Your task to perform on an android device: Open the web browser Image 0: 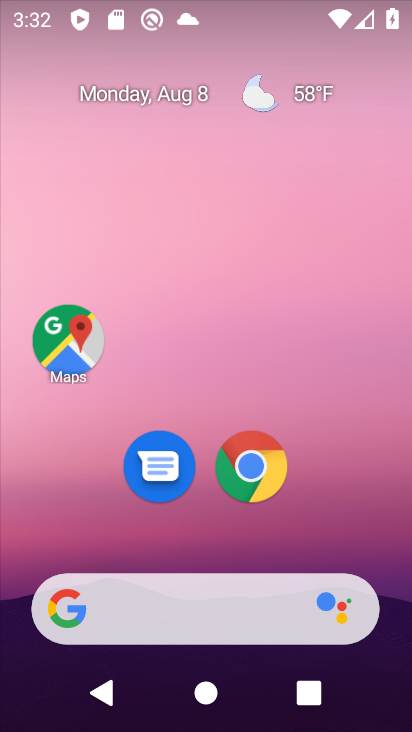
Step 0: click (250, 463)
Your task to perform on an android device: Open the web browser Image 1: 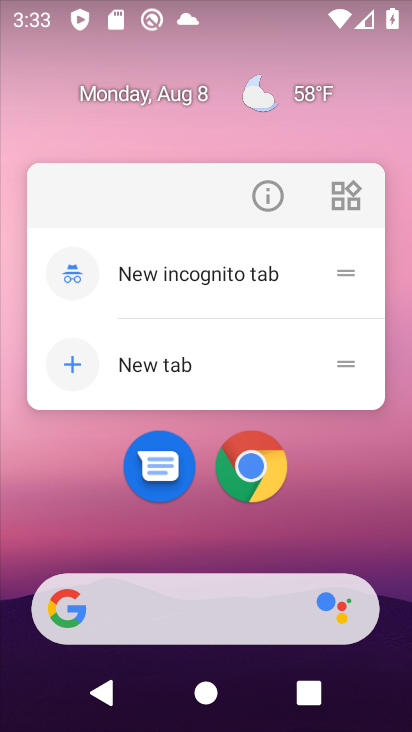
Step 1: click (282, 441)
Your task to perform on an android device: Open the web browser Image 2: 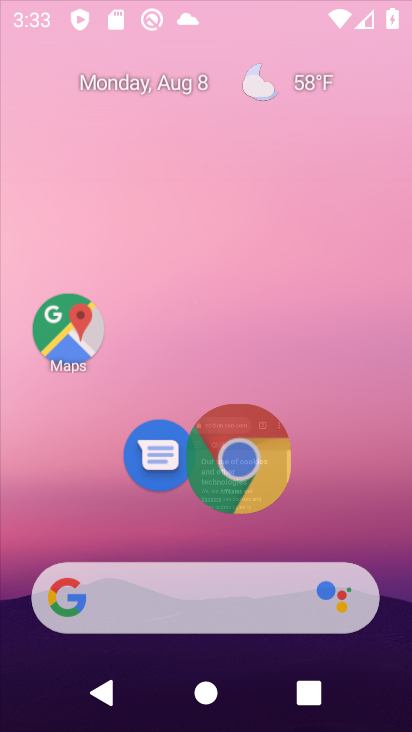
Step 2: click (268, 454)
Your task to perform on an android device: Open the web browser Image 3: 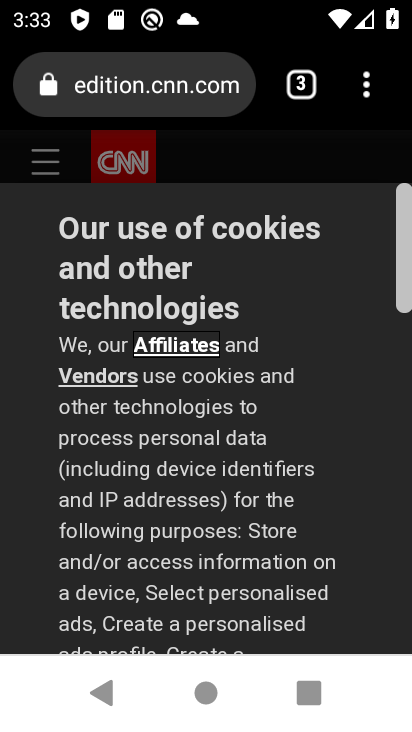
Step 3: task complete